Your task to perform on an android device: What's the weather going to be tomorrow? Image 0: 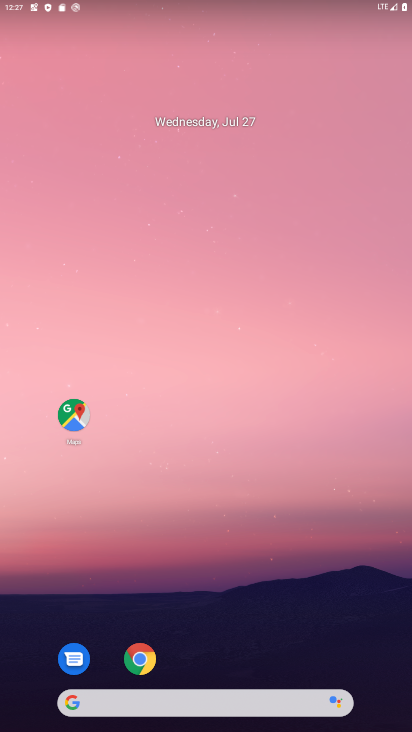
Step 0: click (175, 697)
Your task to perform on an android device: What's the weather going to be tomorrow? Image 1: 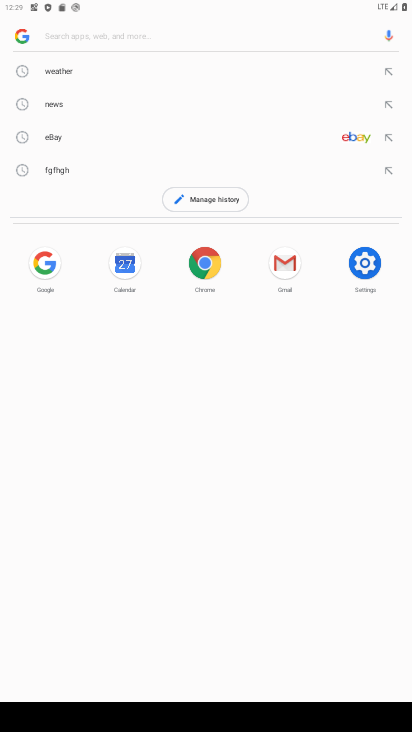
Step 1: click (79, 67)
Your task to perform on an android device: What's the weather going to be tomorrow? Image 2: 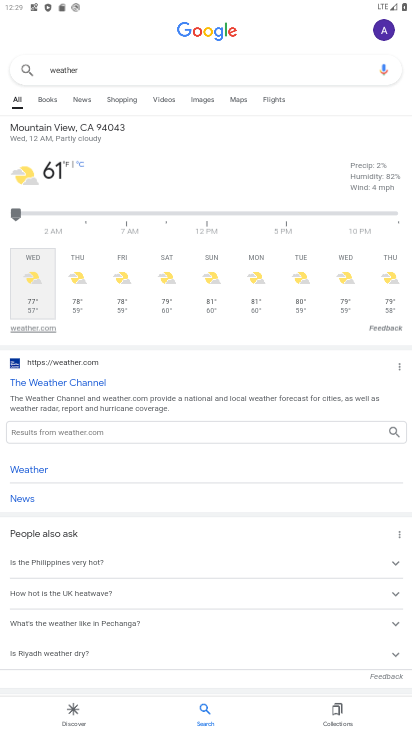
Step 2: click (75, 300)
Your task to perform on an android device: What's the weather going to be tomorrow? Image 3: 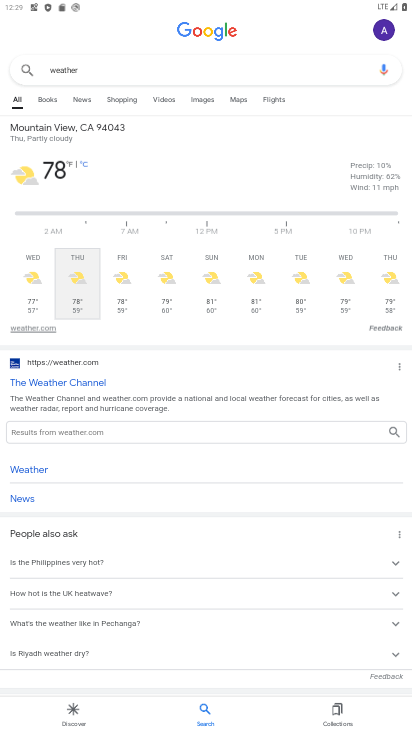
Step 3: task complete